Your task to perform on an android device: When is my next meeting? Image 0: 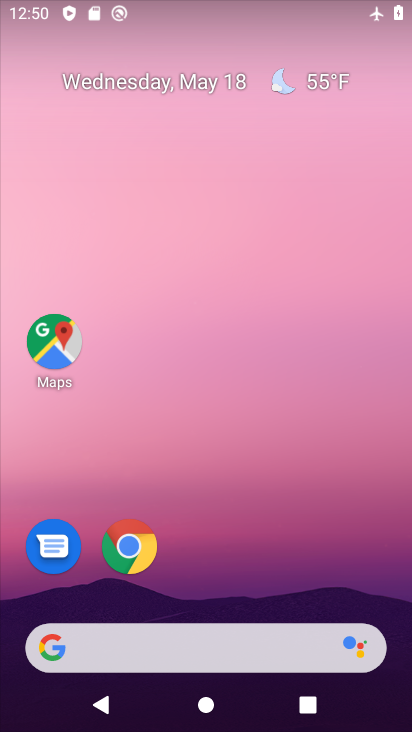
Step 0: drag from (322, 512) to (322, 132)
Your task to perform on an android device: When is my next meeting? Image 1: 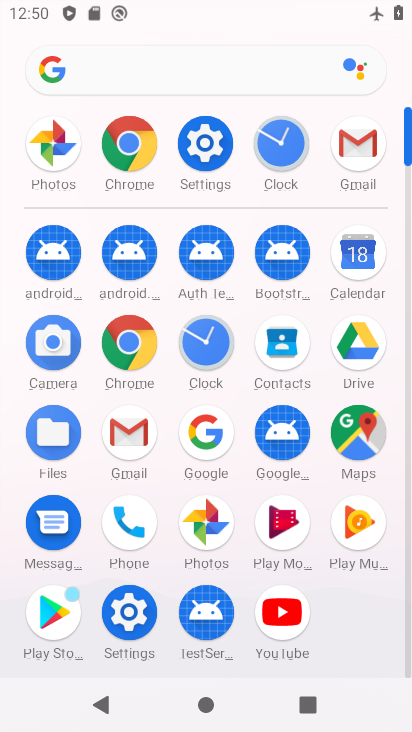
Step 1: click (354, 256)
Your task to perform on an android device: When is my next meeting? Image 2: 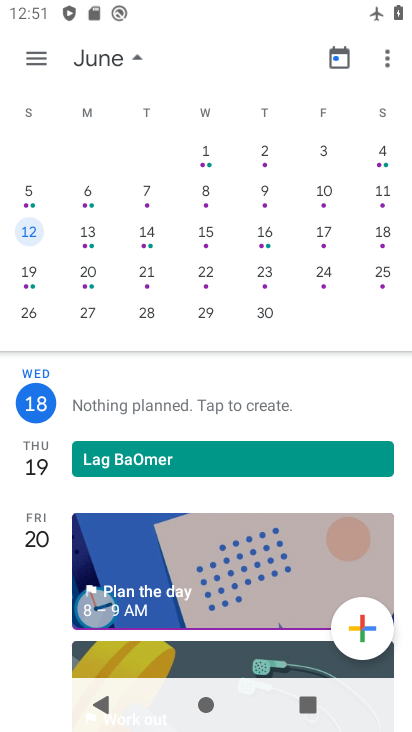
Step 2: drag from (133, 583) to (172, 405)
Your task to perform on an android device: When is my next meeting? Image 3: 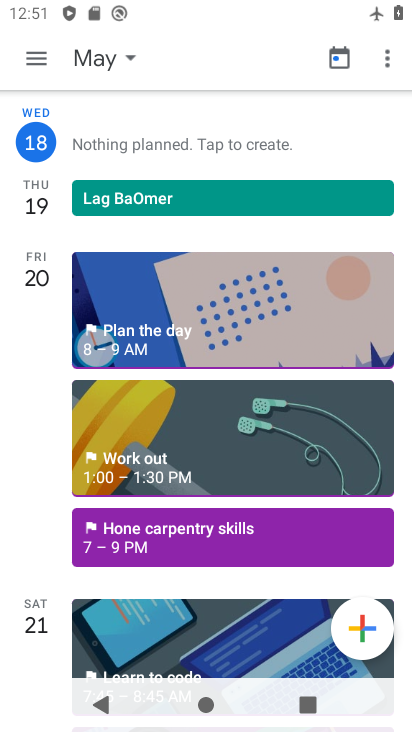
Step 3: drag from (170, 649) to (198, 352)
Your task to perform on an android device: When is my next meeting? Image 4: 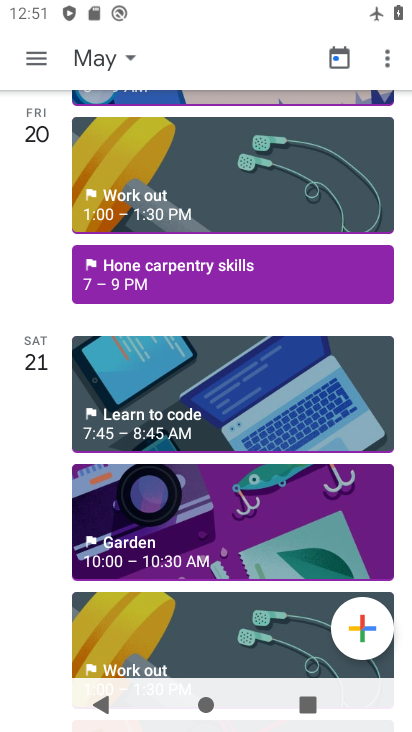
Step 4: drag from (206, 608) to (233, 323)
Your task to perform on an android device: When is my next meeting? Image 5: 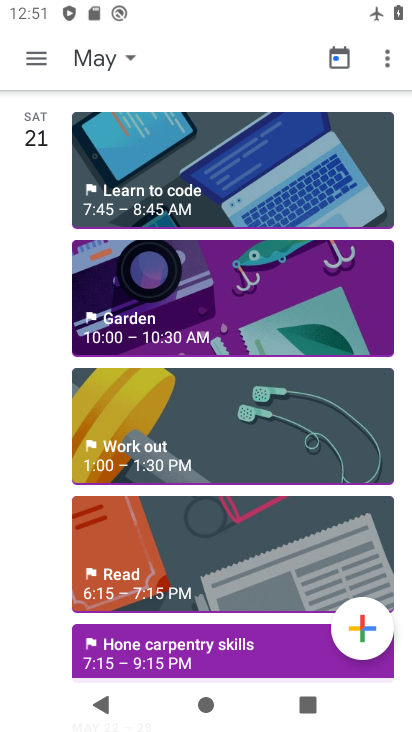
Step 5: drag from (192, 638) to (208, 318)
Your task to perform on an android device: When is my next meeting? Image 6: 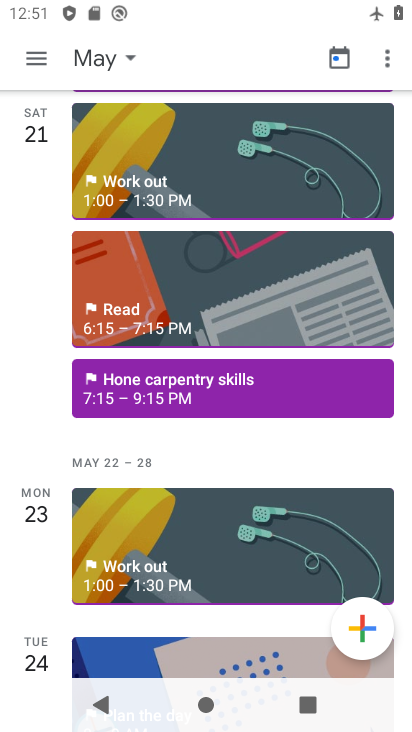
Step 6: drag from (206, 655) to (231, 327)
Your task to perform on an android device: When is my next meeting? Image 7: 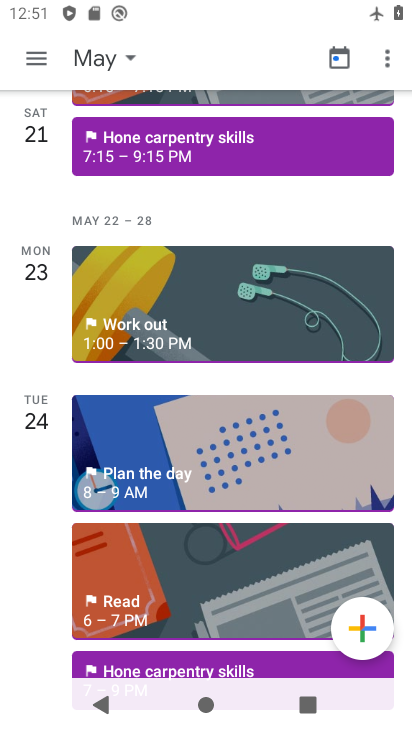
Step 7: drag from (220, 629) to (217, 283)
Your task to perform on an android device: When is my next meeting? Image 8: 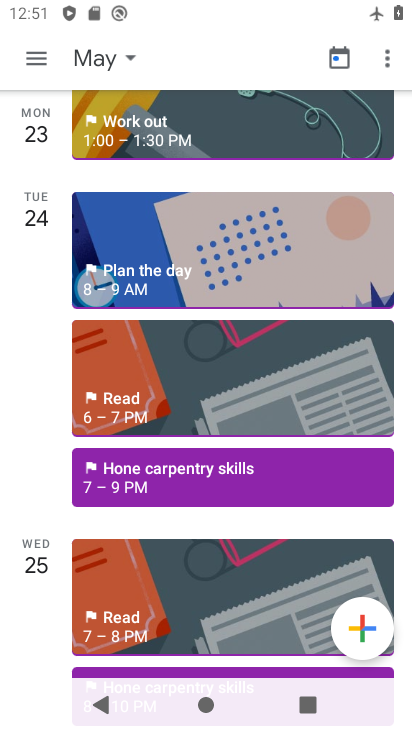
Step 8: drag from (232, 612) to (232, 299)
Your task to perform on an android device: When is my next meeting? Image 9: 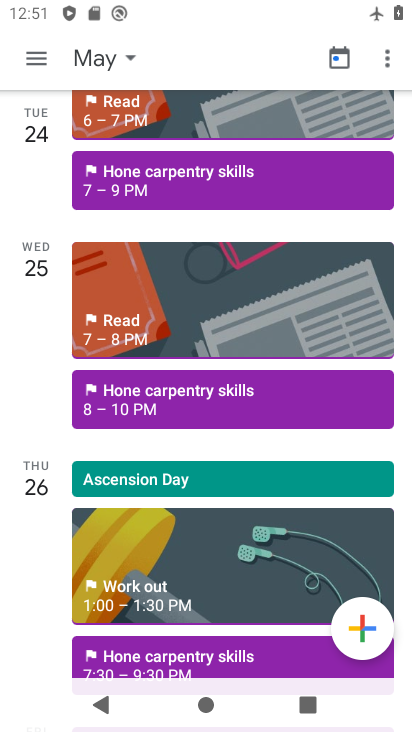
Step 9: drag from (226, 600) to (225, 325)
Your task to perform on an android device: When is my next meeting? Image 10: 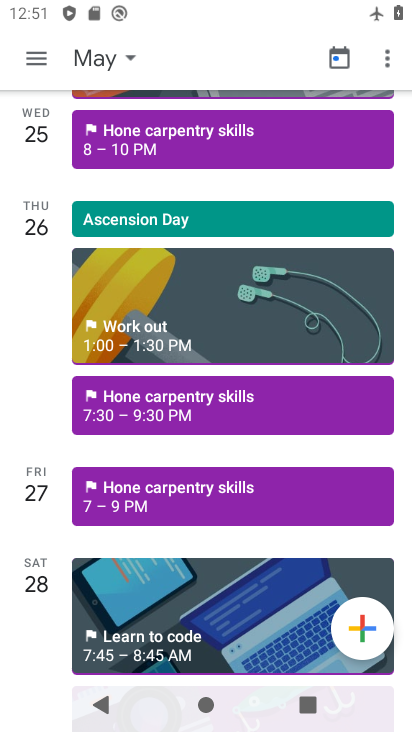
Step 10: drag from (211, 612) to (205, 251)
Your task to perform on an android device: When is my next meeting? Image 11: 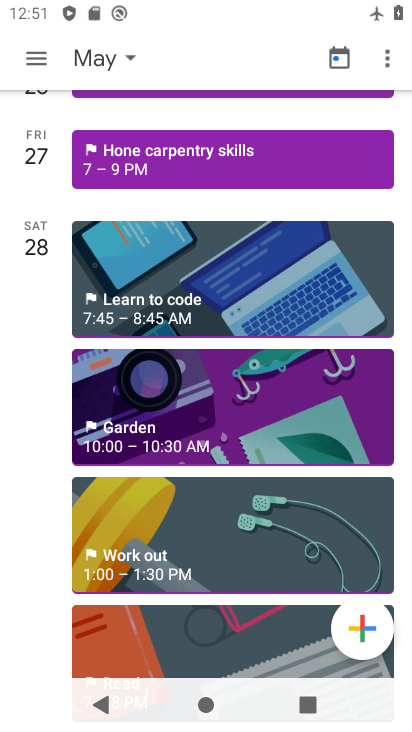
Step 11: drag from (211, 570) to (245, 288)
Your task to perform on an android device: When is my next meeting? Image 12: 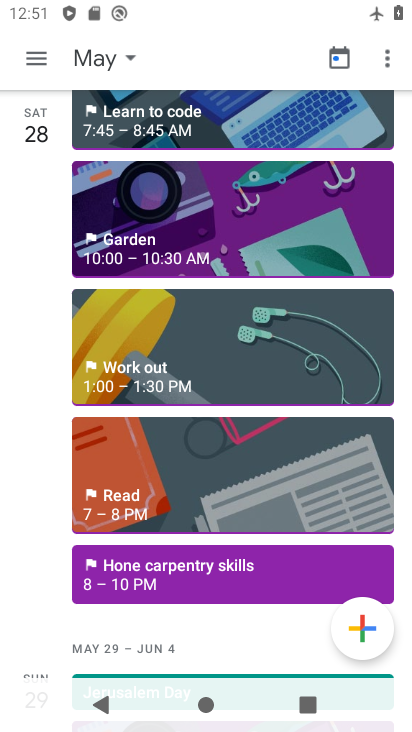
Step 12: drag from (233, 579) to (247, 303)
Your task to perform on an android device: When is my next meeting? Image 13: 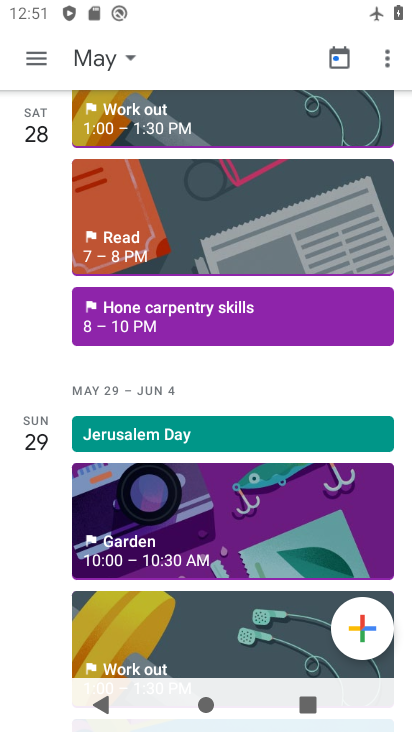
Step 13: drag from (193, 607) to (236, 261)
Your task to perform on an android device: When is my next meeting? Image 14: 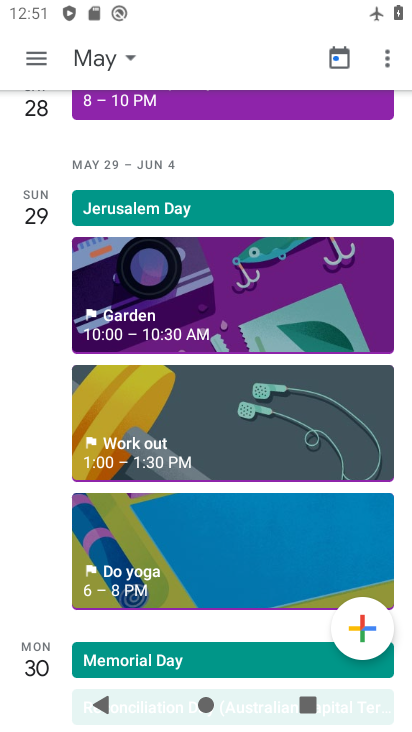
Step 14: drag from (216, 654) to (234, 187)
Your task to perform on an android device: When is my next meeting? Image 15: 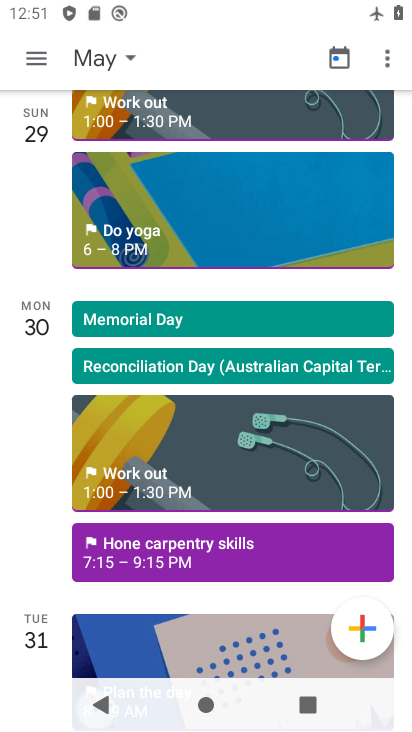
Step 15: drag from (188, 542) to (190, 294)
Your task to perform on an android device: When is my next meeting? Image 16: 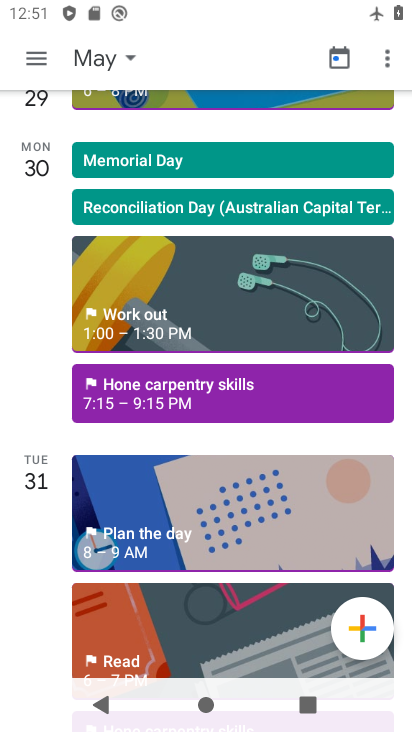
Step 16: drag from (175, 579) to (186, 237)
Your task to perform on an android device: When is my next meeting? Image 17: 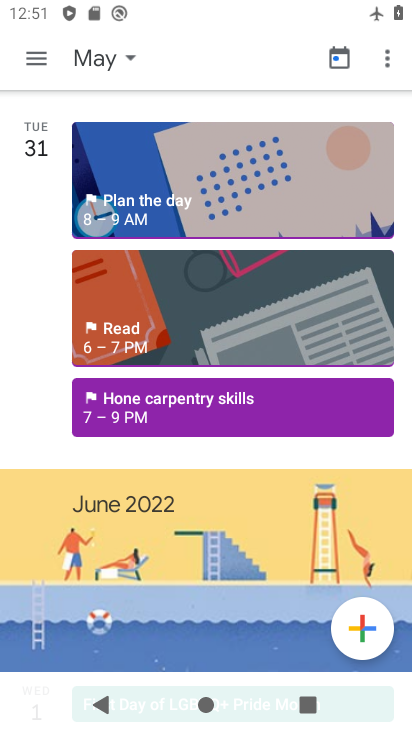
Step 17: drag from (188, 571) to (219, 233)
Your task to perform on an android device: When is my next meeting? Image 18: 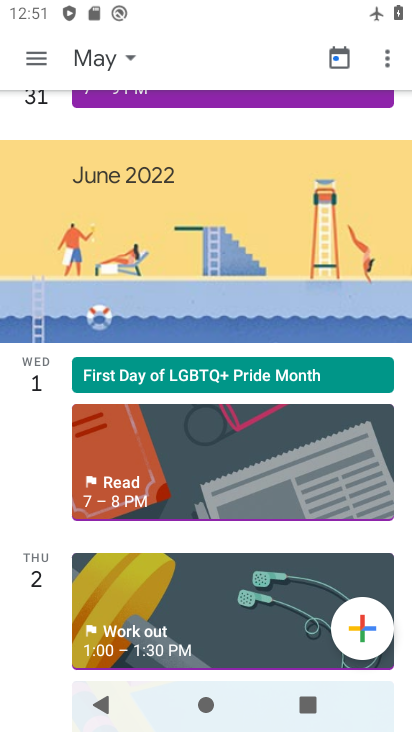
Step 18: drag from (205, 592) to (254, 282)
Your task to perform on an android device: When is my next meeting? Image 19: 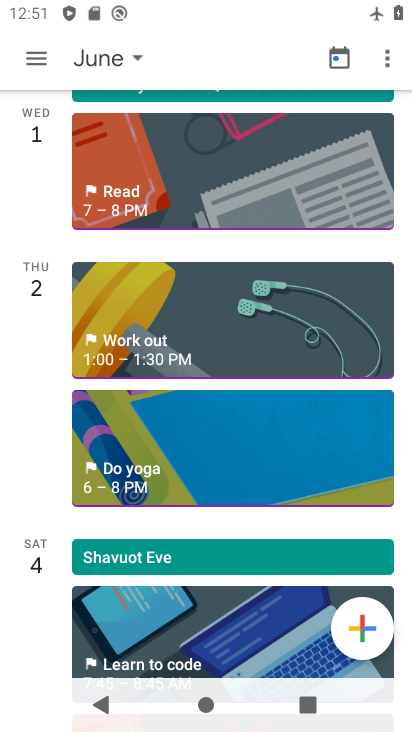
Step 19: drag from (224, 564) to (256, 230)
Your task to perform on an android device: When is my next meeting? Image 20: 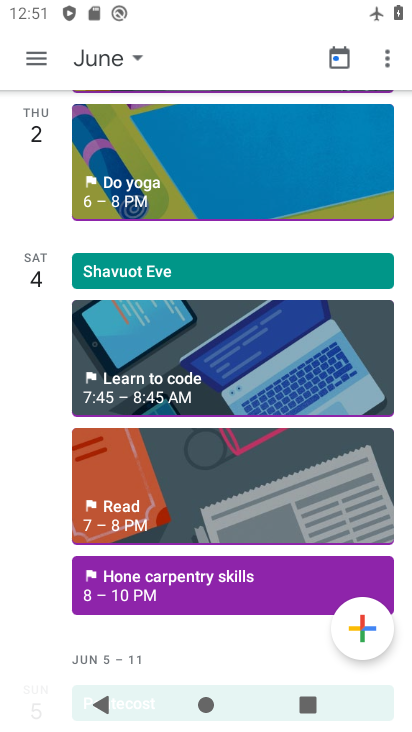
Step 20: drag from (205, 578) to (252, 235)
Your task to perform on an android device: When is my next meeting? Image 21: 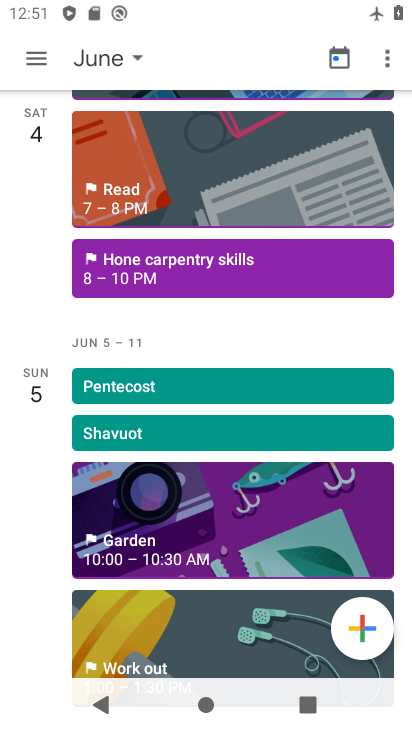
Step 21: drag from (200, 555) to (282, 148)
Your task to perform on an android device: When is my next meeting? Image 22: 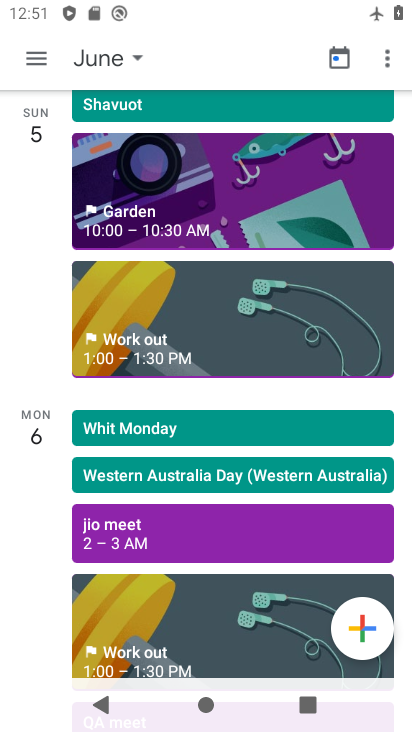
Step 22: click (150, 539)
Your task to perform on an android device: When is my next meeting? Image 23: 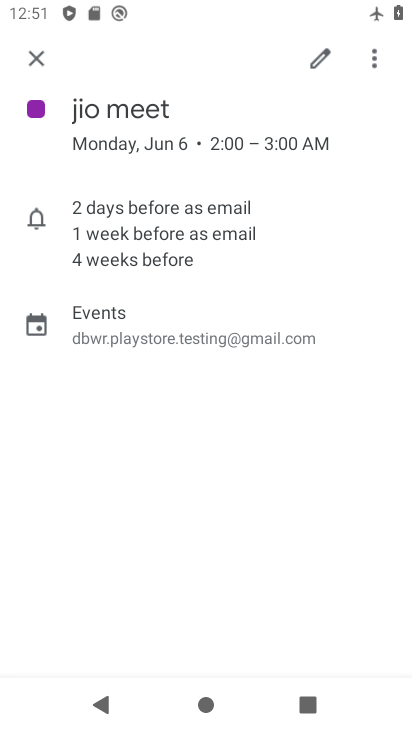
Step 23: task complete